Your task to perform on an android device: Play the last video I watched on Youtube Image 0: 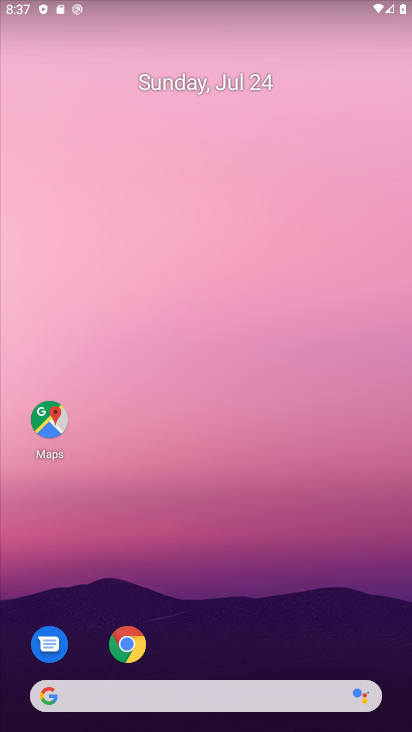
Step 0: drag from (321, 687) to (283, 296)
Your task to perform on an android device: Play the last video I watched on Youtube Image 1: 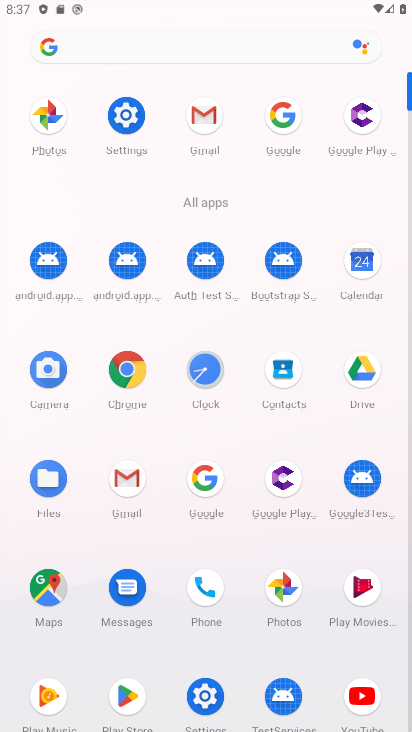
Step 1: click (360, 702)
Your task to perform on an android device: Play the last video I watched on Youtube Image 2: 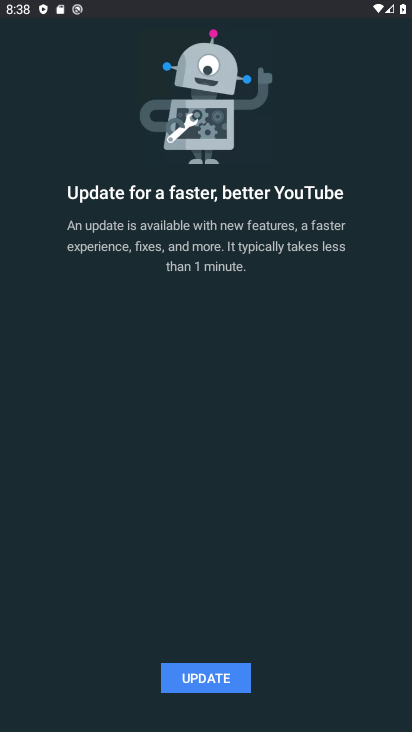
Step 2: click (221, 685)
Your task to perform on an android device: Play the last video I watched on Youtube Image 3: 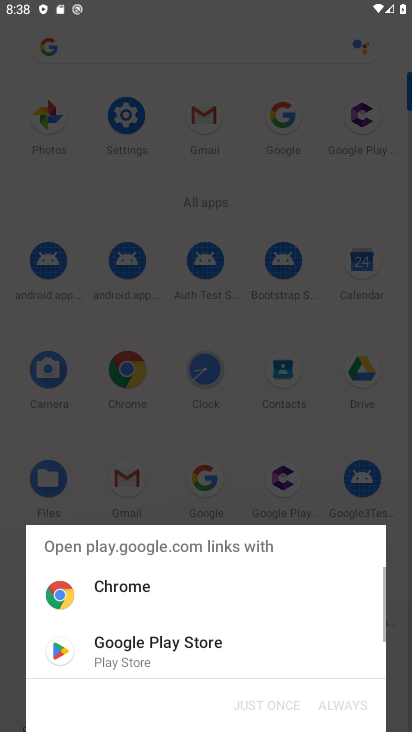
Step 3: click (164, 657)
Your task to perform on an android device: Play the last video I watched on Youtube Image 4: 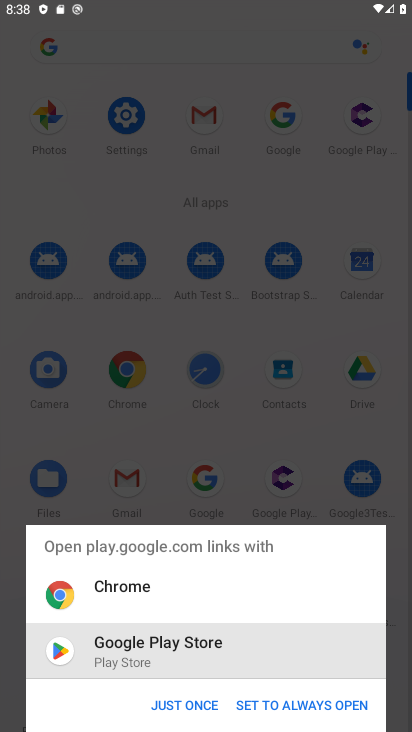
Step 4: click (179, 696)
Your task to perform on an android device: Play the last video I watched on Youtube Image 5: 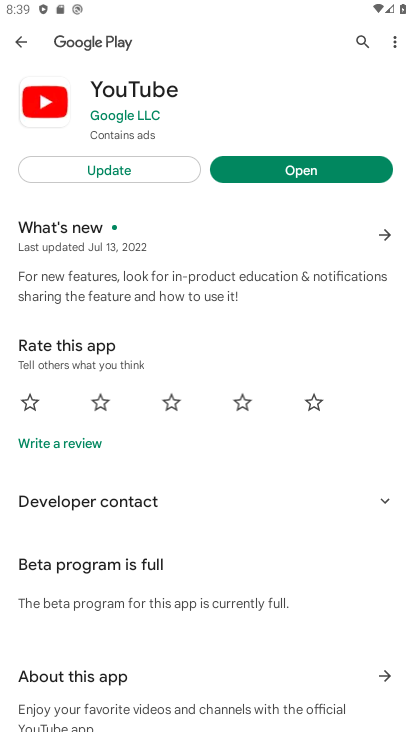
Step 5: click (263, 175)
Your task to perform on an android device: Play the last video I watched on Youtube Image 6: 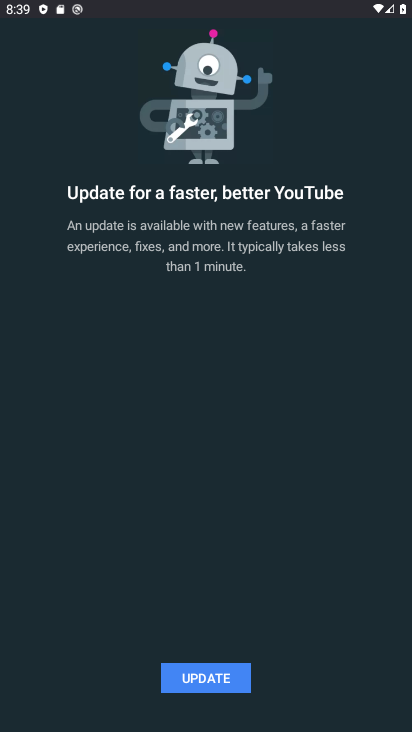
Step 6: click (129, 667)
Your task to perform on an android device: Play the last video I watched on Youtube Image 7: 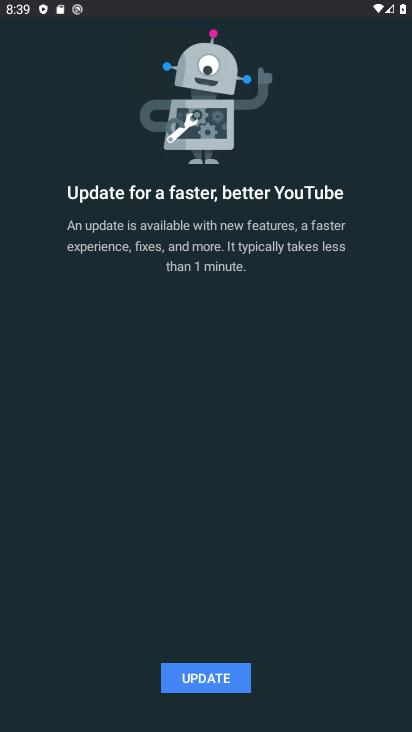
Step 7: click (169, 678)
Your task to perform on an android device: Play the last video I watched on Youtube Image 8: 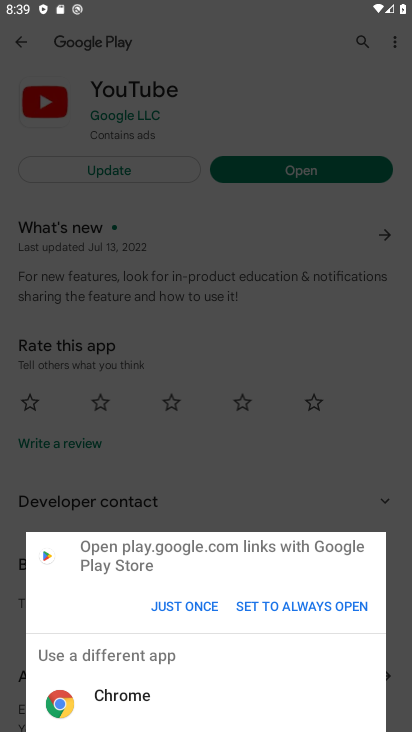
Step 8: click (224, 599)
Your task to perform on an android device: Play the last video I watched on Youtube Image 9: 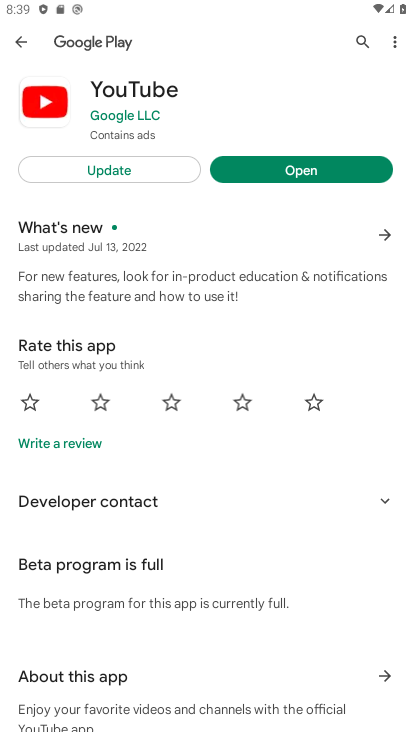
Step 9: click (126, 166)
Your task to perform on an android device: Play the last video I watched on Youtube Image 10: 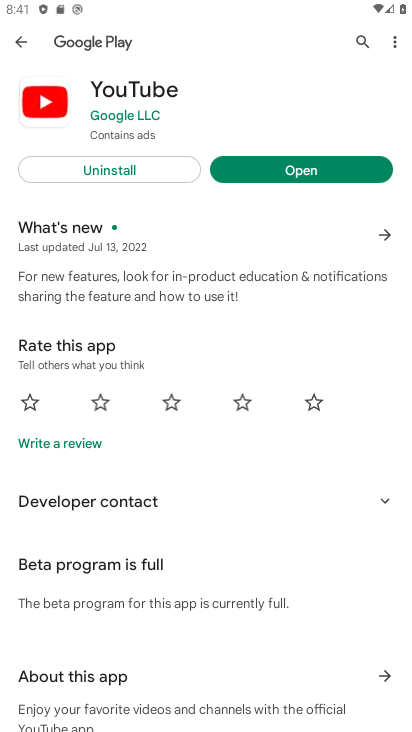
Step 10: click (283, 160)
Your task to perform on an android device: Play the last video I watched on Youtube Image 11: 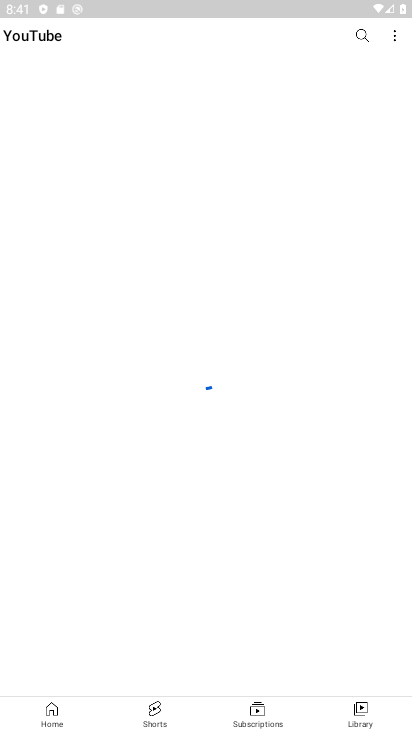
Step 11: click (353, 716)
Your task to perform on an android device: Play the last video I watched on Youtube Image 12: 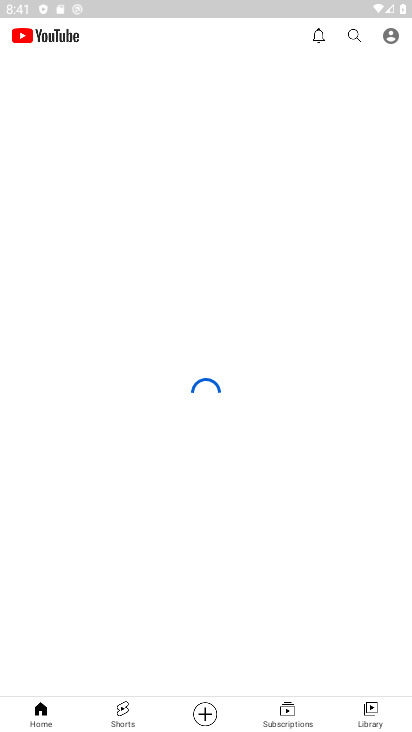
Step 12: click (368, 710)
Your task to perform on an android device: Play the last video I watched on Youtube Image 13: 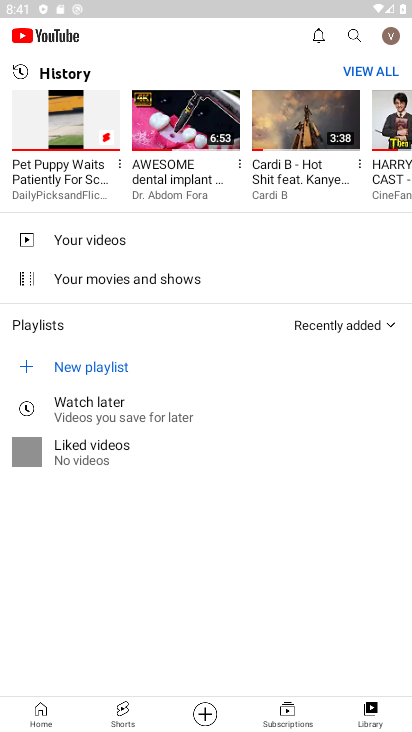
Step 13: click (66, 115)
Your task to perform on an android device: Play the last video I watched on Youtube Image 14: 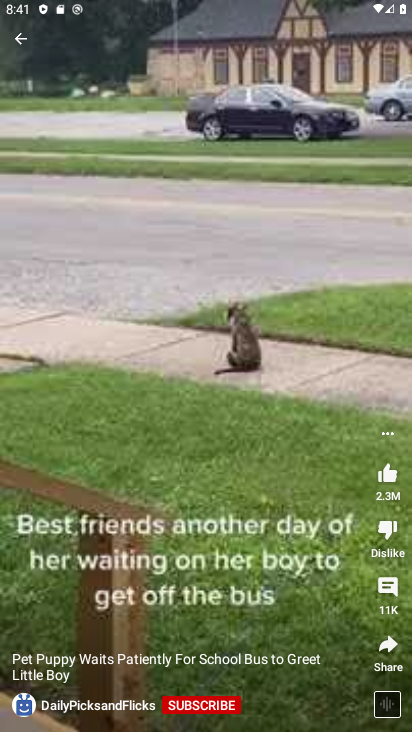
Step 14: task complete